Your task to perform on an android device: Go to calendar. Show me events next week Image 0: 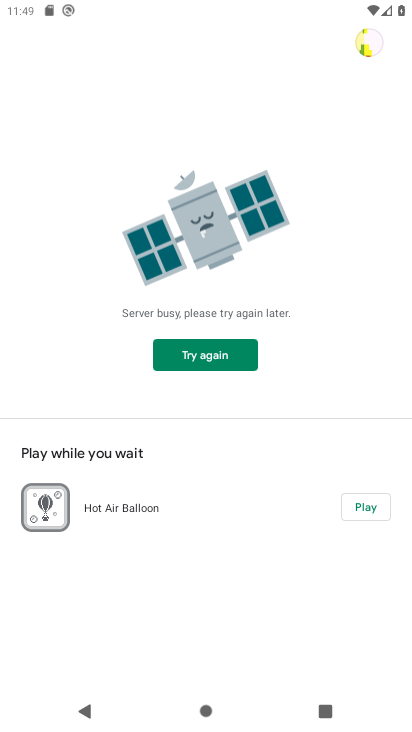
Step 0: press home button
Your task to perform on an android device: Go to calendar. Show me events next week Image 1: 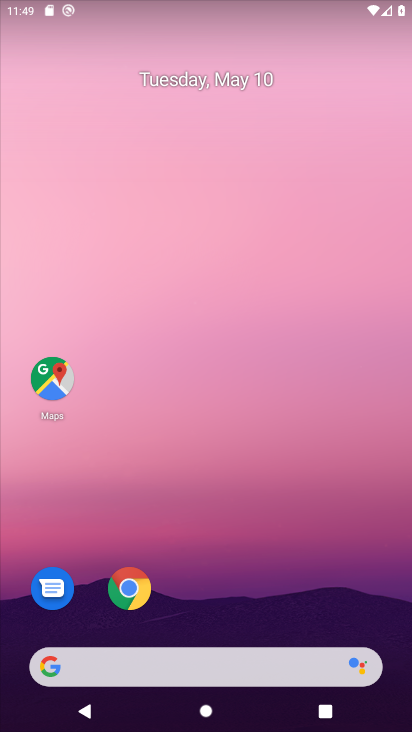
Step 1: drag from (159, 624) to (159, 203)
Your task to perform on an android device: Go to calendar. Show me events next week Image 2: 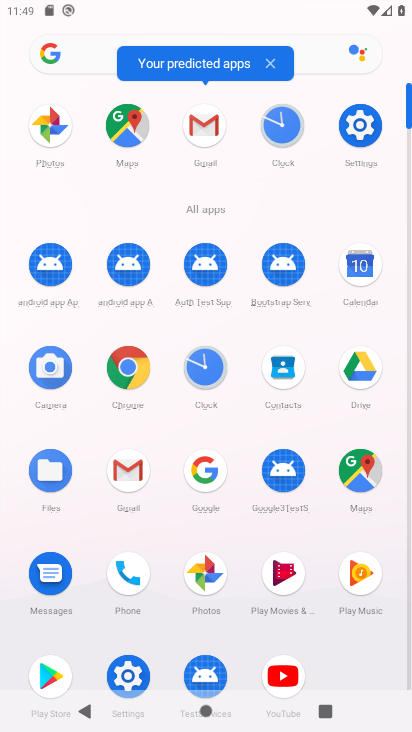
Step 2: click (354, 267)
Your task to perform on an android device: Go to calendar. Show me events next week Image 3: 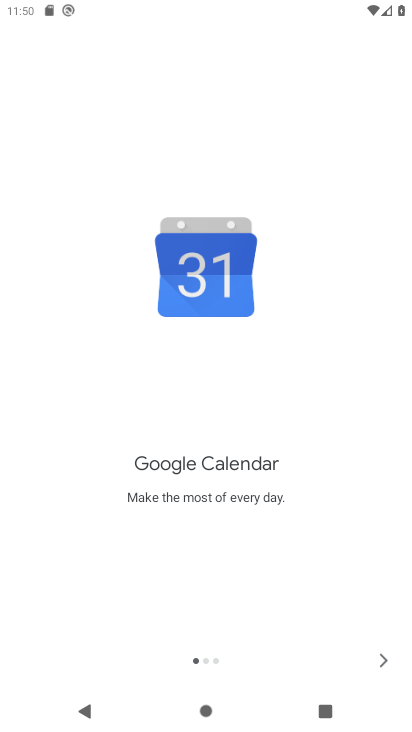
Step 3: click (373, 659)
Your task to perform on an android device: Go to calendar. Show me events next week Image 4: 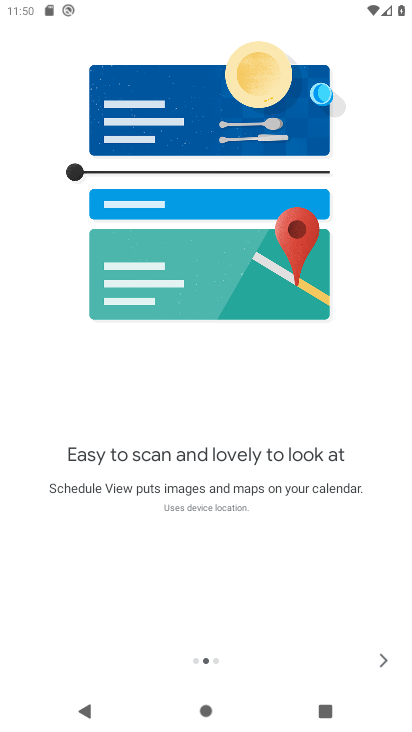
Step 4: click (373, 658)
Your task to perform on an android device: Go to calendar. Show me events next week Image 5: 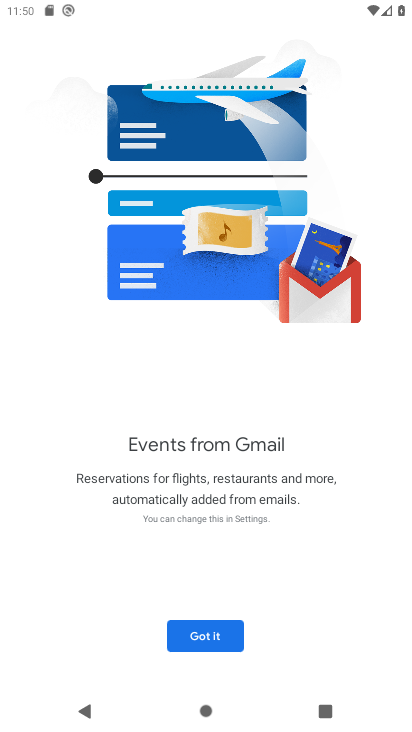
Step 5: click (216, 635)
Your task to perform on an android device: Go to calendar. Show me events next week Image 6: 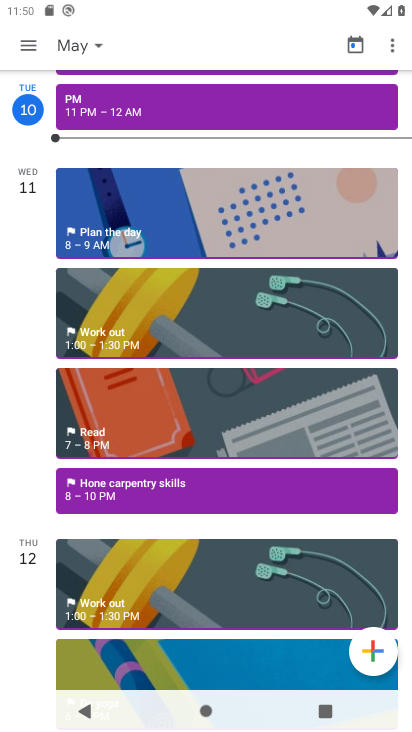
Step 6: click (90, 39)
Your task to perform on an android device: Go to calendar. Show me events next week Image 7: 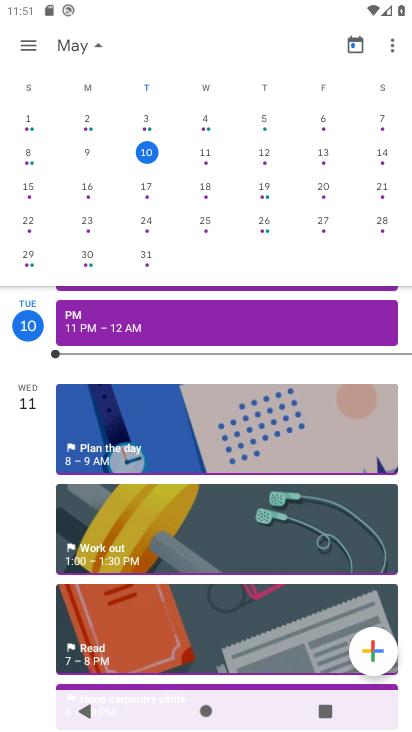
Step 7: click (273, 194)
Your task to perform on an android device: Go to calendar. Show me events next week Image 8: 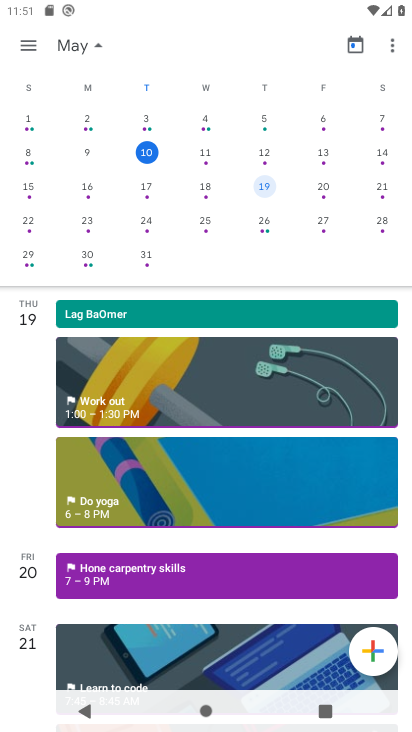
Step 8: task complete